Your task to perform on an android device: Turn on the flashlight Image 0: 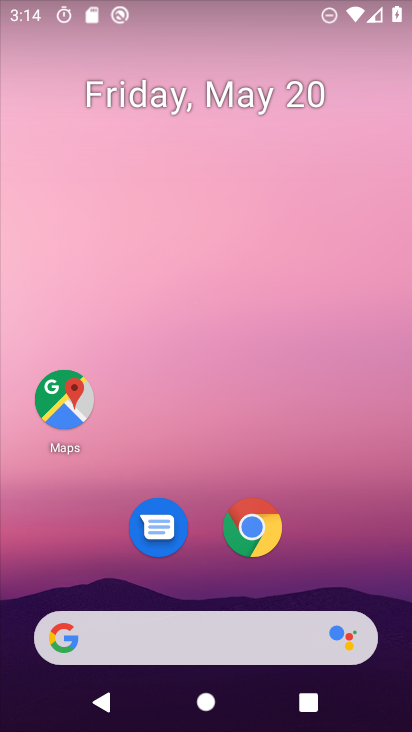
Step 0: drag from (186, 462) to (200, 82)
Your task to perform on an android device: Turn on the flashlight Image 1: 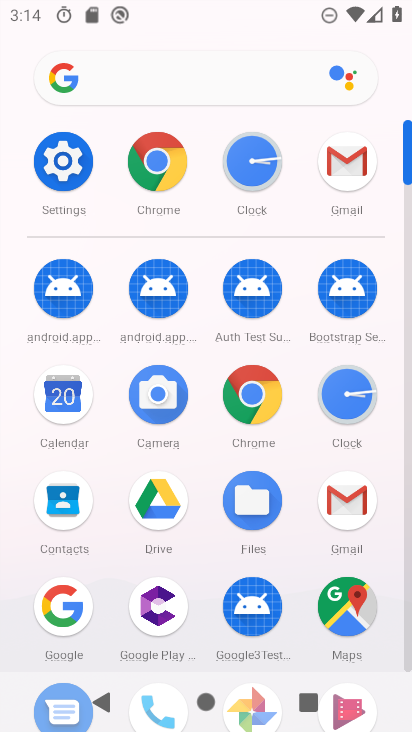
Step 1: click (70, 161)
Your task to perform on an android device: Turn on the flashlight Image 2: 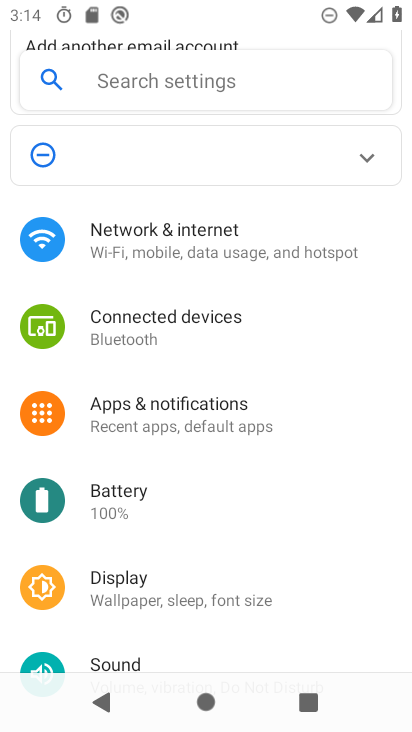
Step 2: click (151, 85)
Your task to perform on an android device: Turn on the flashlight Image 3: 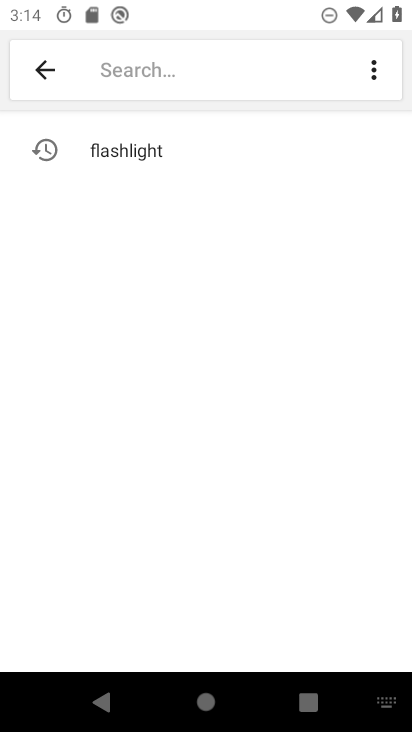
Step 3: type "flashlight"
Your task to perform on an android device: Turn on the flashlight Image 4: 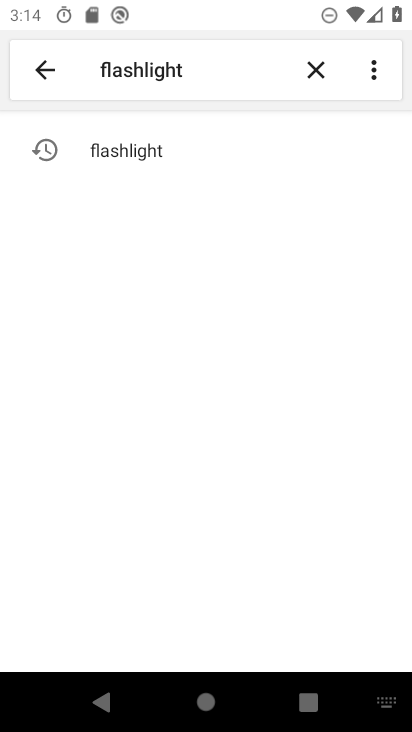
Step 4: click (122, 162)
Your task to perform on an android device: Turn on the flashlight Image 5: 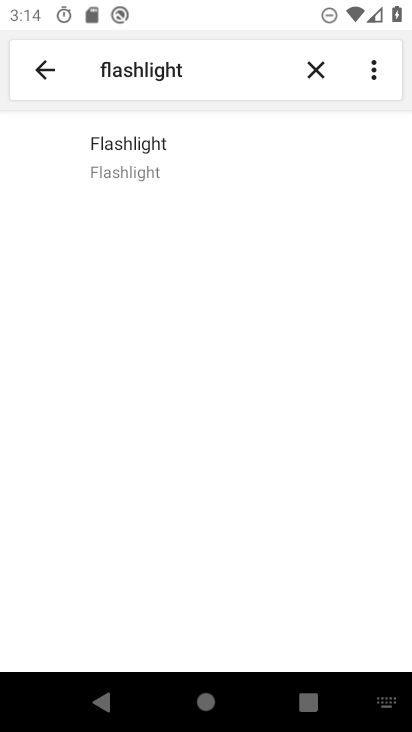
Step 5: task complete